Your task to perform on an android device: turn pop-ups off in chrome Image 0: 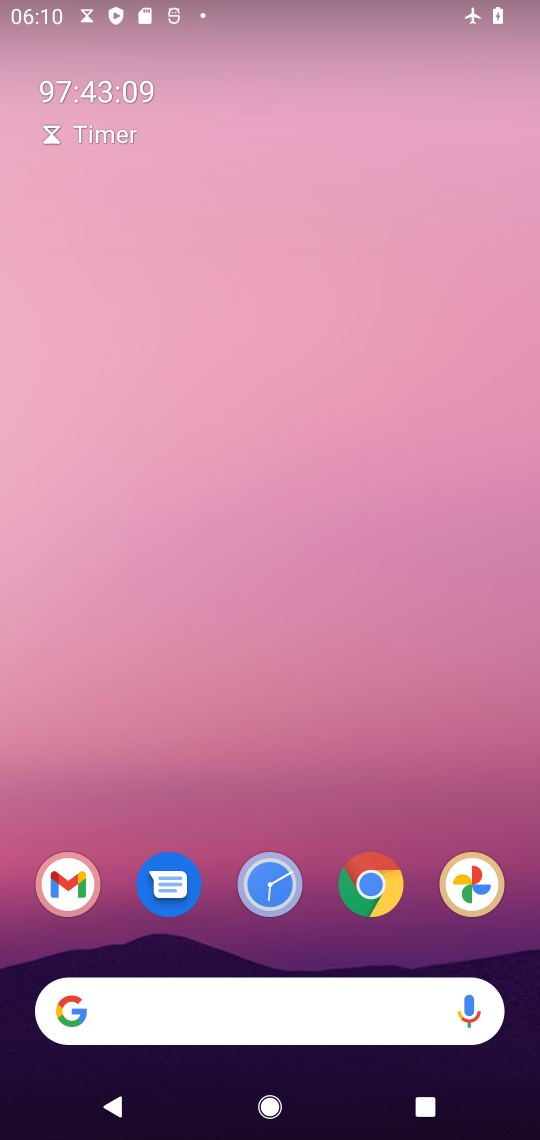
Step 0: drag from (347, 956) to (302, 295)
Your task to perform on an android device: turn pop-ups off in chrome Image 1: 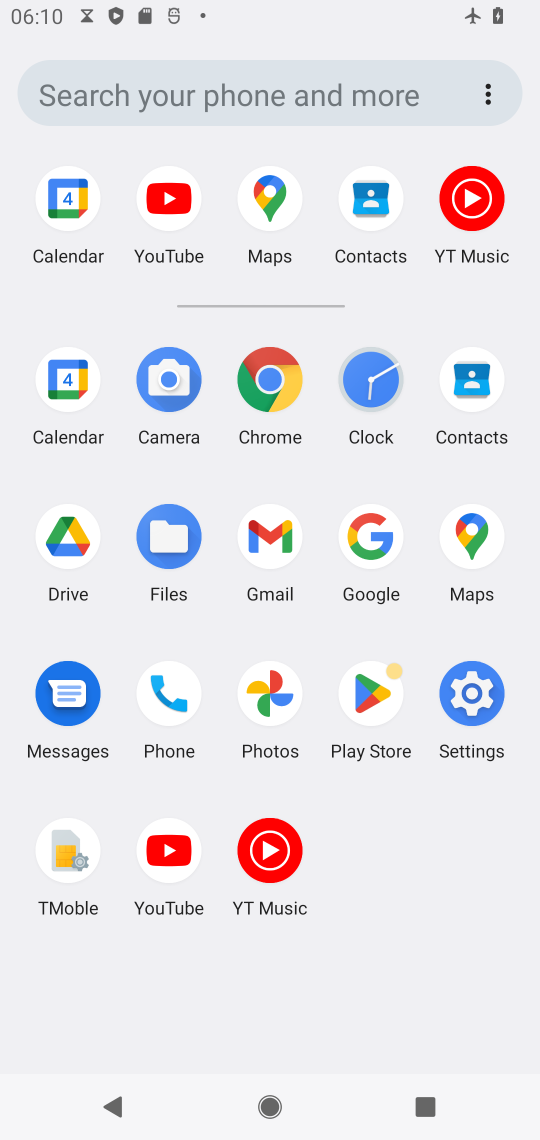
Step 1: click (266, 370)
Your task to perform on an android device: turn pop-ups off in chrome Image 2: 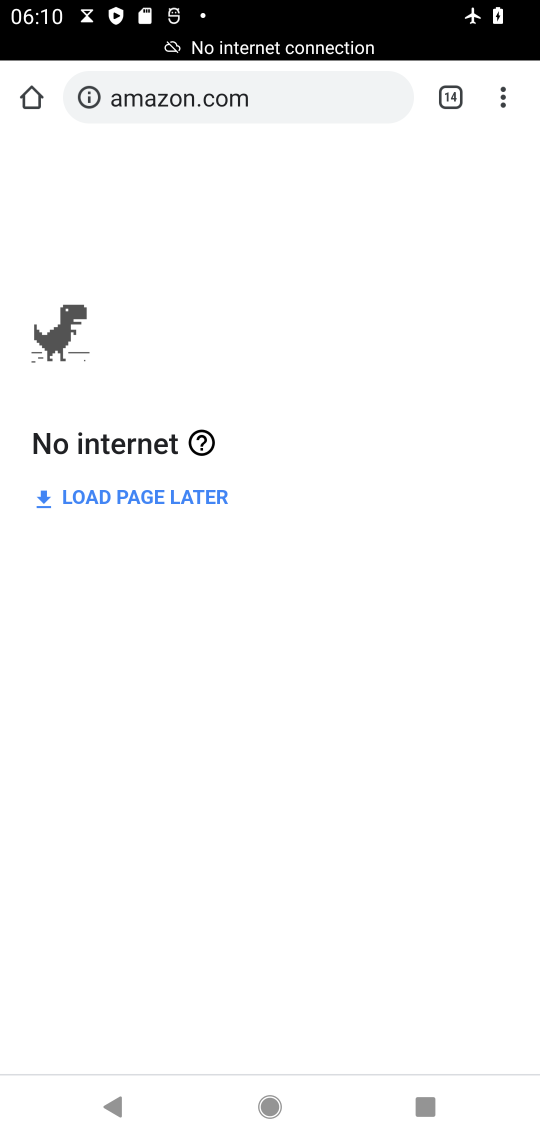
Step 2: click (504, 83)
Your task to perform on an android device: turn pop-ups off in chrome Image 3: 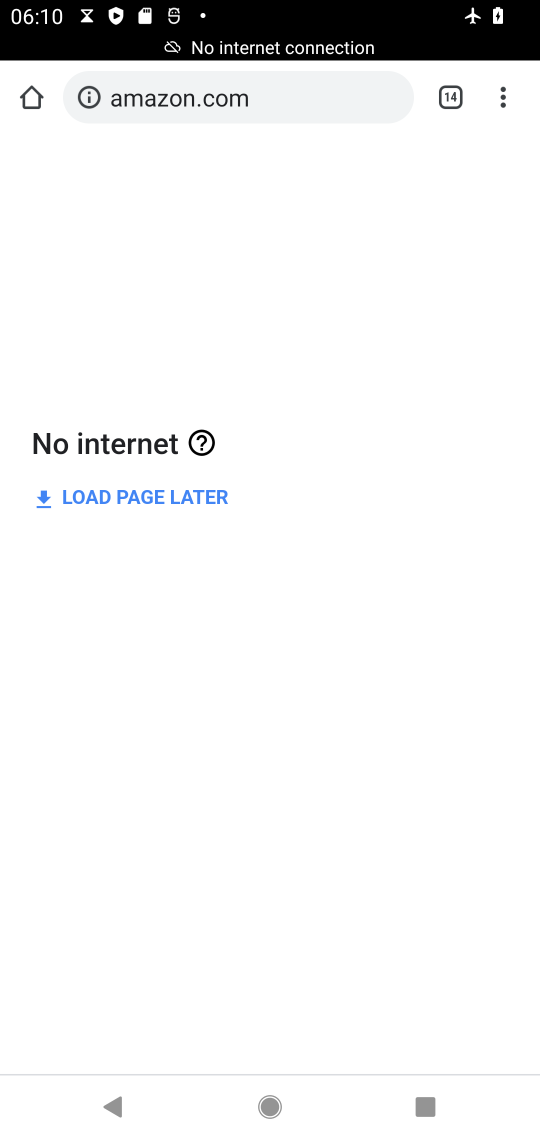
Step 3: click (531, 100)
Your task to perform on an android device: turn pop-ups off in chrome Image 4: 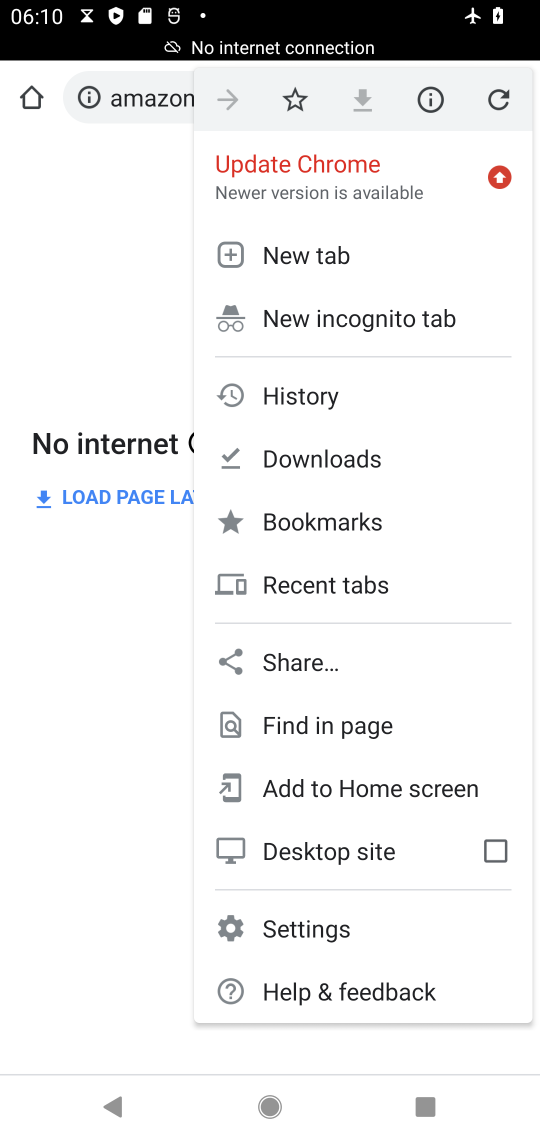
Step 4: click (346, 930)
Your task to perform on an android device: turn pop-ups off in chrome Image 5: 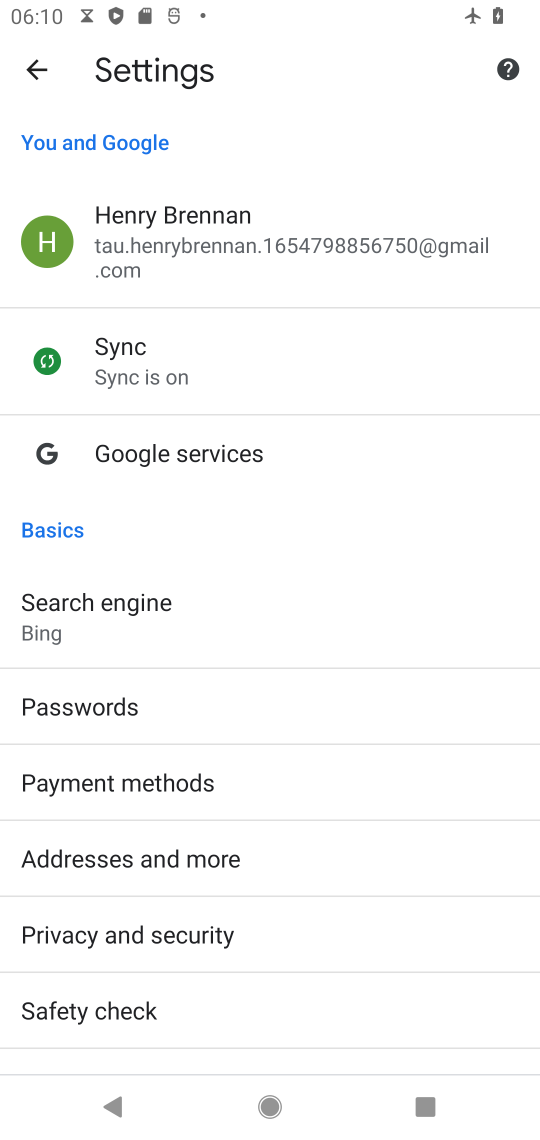
Step 5: drag from (216, 990) to (307, 446)
Your task to perform on an android device: turn pop-ups off in chrome Image 6: 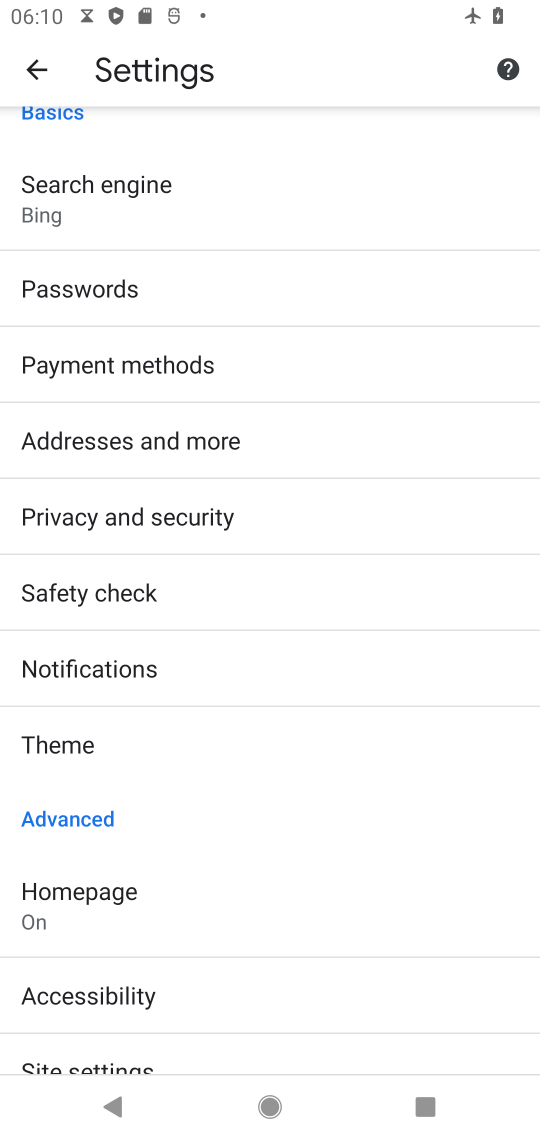
Step 6: drag from (181, 915) to (296, 484)
Your task to perform on an android device: turn pop-ups off in chrome Image 7: 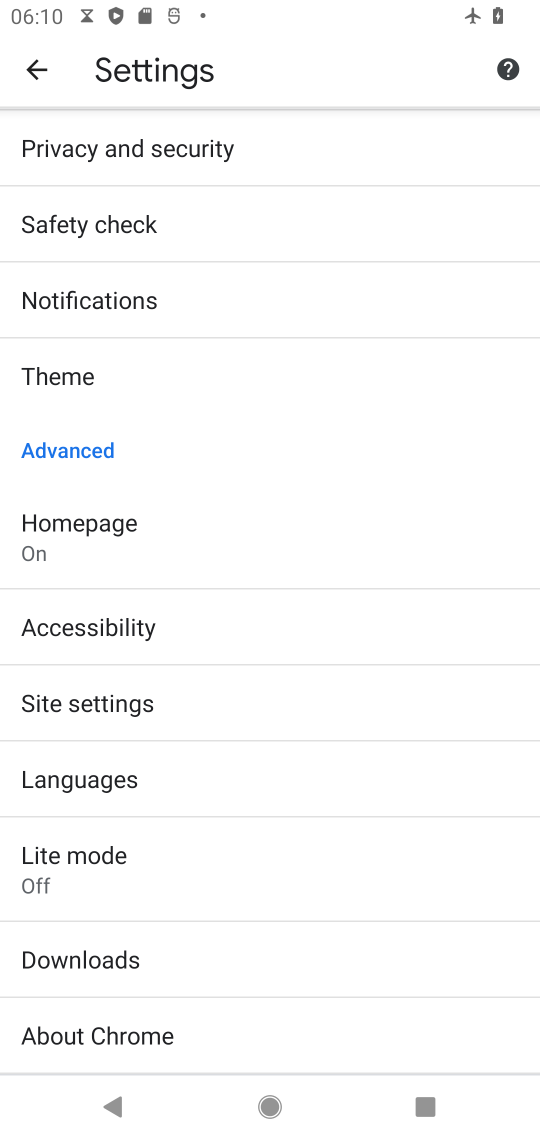
Step 7: click (136, 704)
Your task to perform on an android device: turn pop-ups off in chrome Image 8: 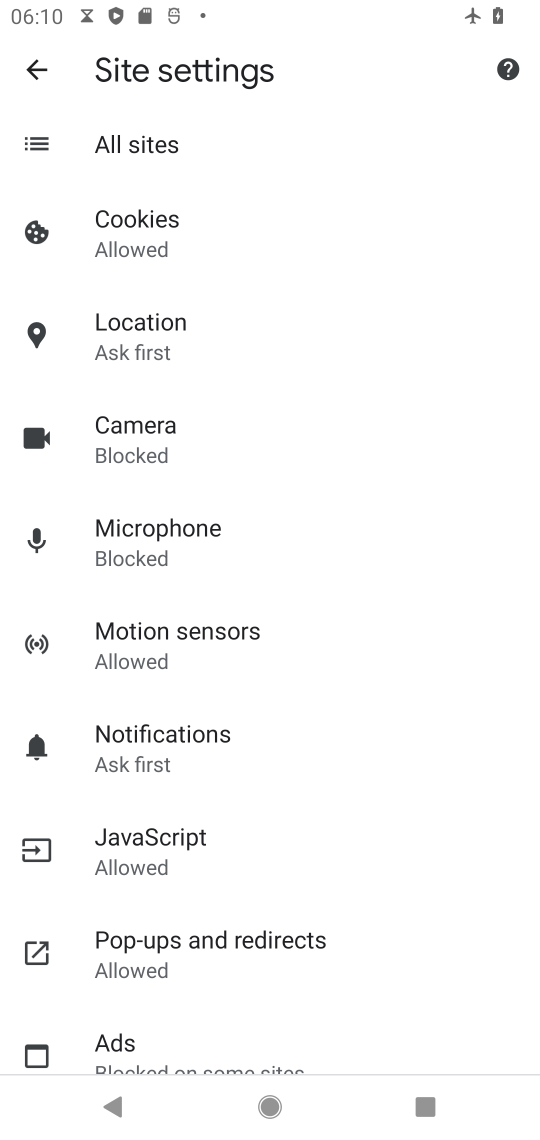
Step 8: click (175, 958)
Your task to perform on an android device: turn pop-ups off in chrome Image 9: 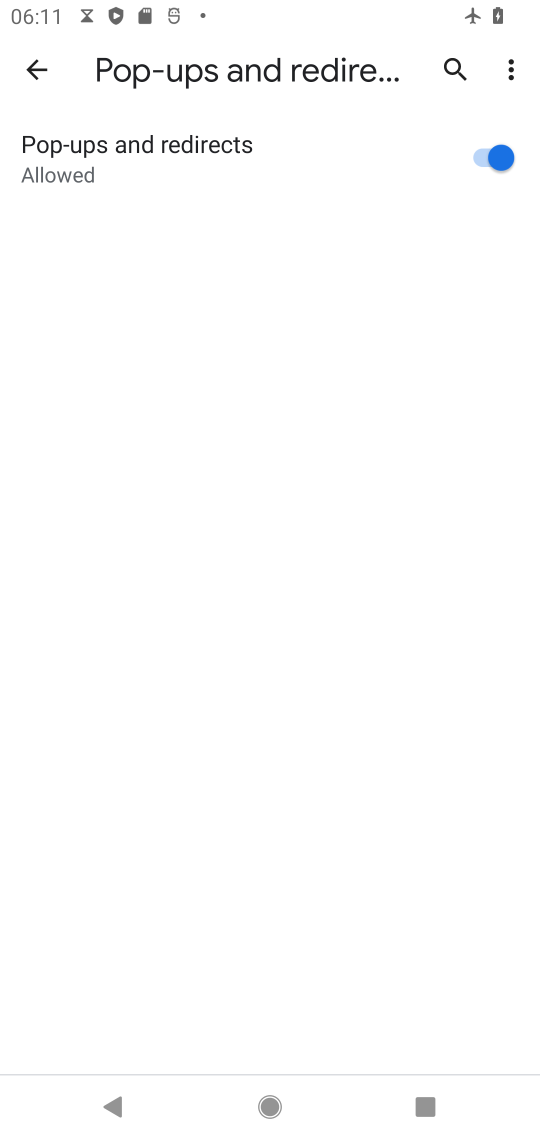
Step 9: click (465, 147)
Your task to perform on an android device: turn pop-ups off in chrome Image 10: 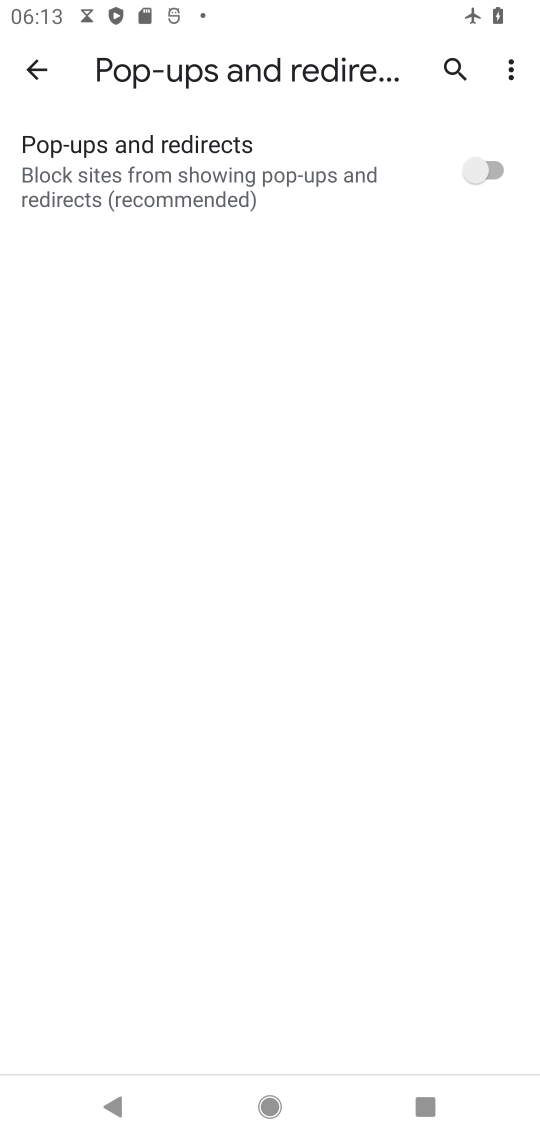
Step 10: task complete